Your task to perform on an android device: check out phone information Image 0: 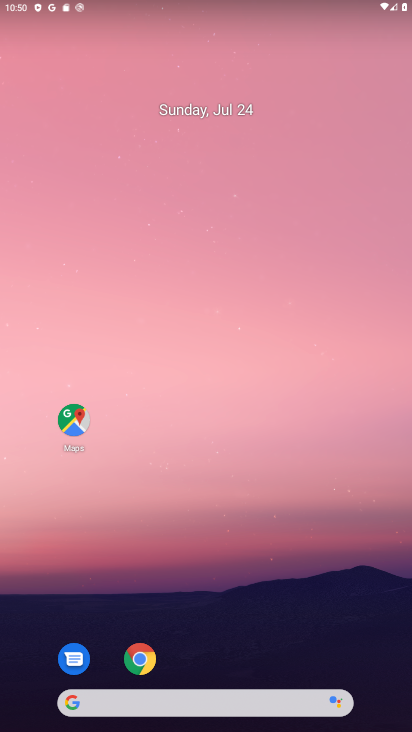
Step 0: drag from (260, 635) to (266, 244)
Your task to perform on an android device: check out phone information Image 1: 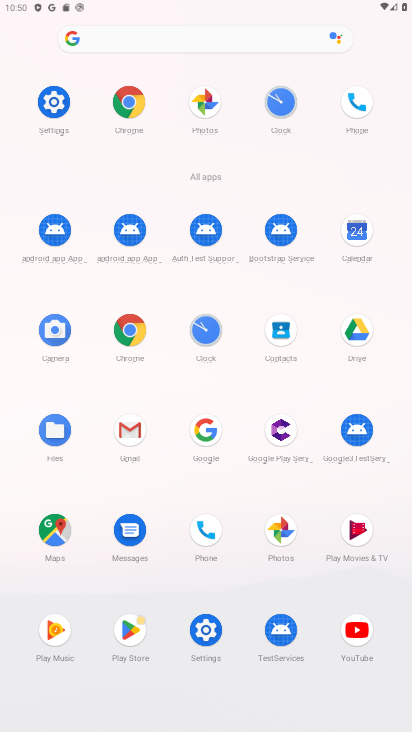
Step 1: click (218, 635)
Your task to perform on an android device: check out phone information Image 2: 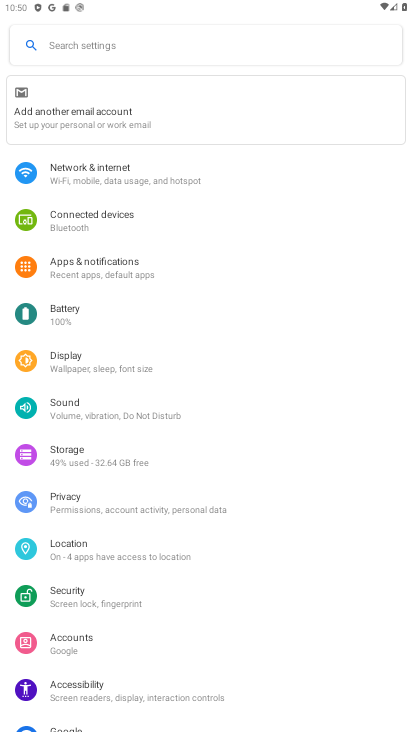
Step 2: drag from (180, 652) to (202, 268)
Your task to perform on an android device: check out phone information Image 3: 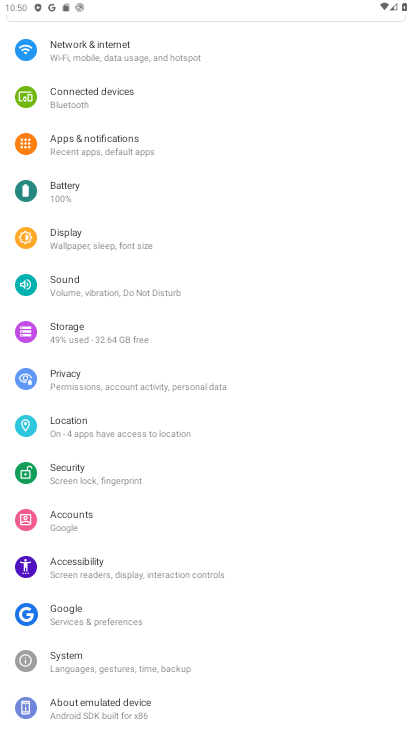
Step 3: click (83, 720)
Your task to perform on an android device: check out phone information Image 4: 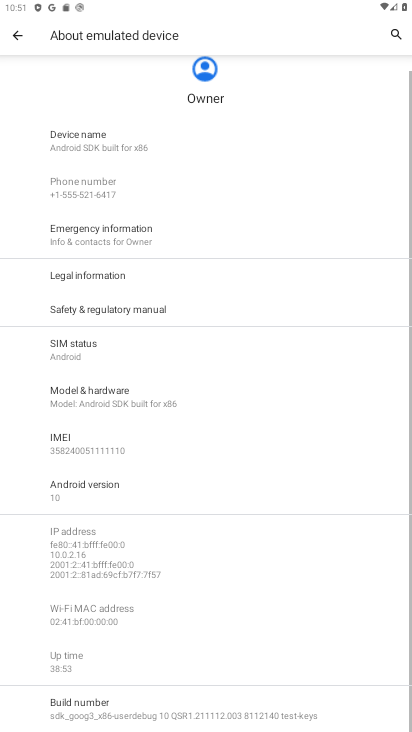
Step 4: task complete